Your task to perform on an android device: uninstall "Yahoo Mail" Image 0: 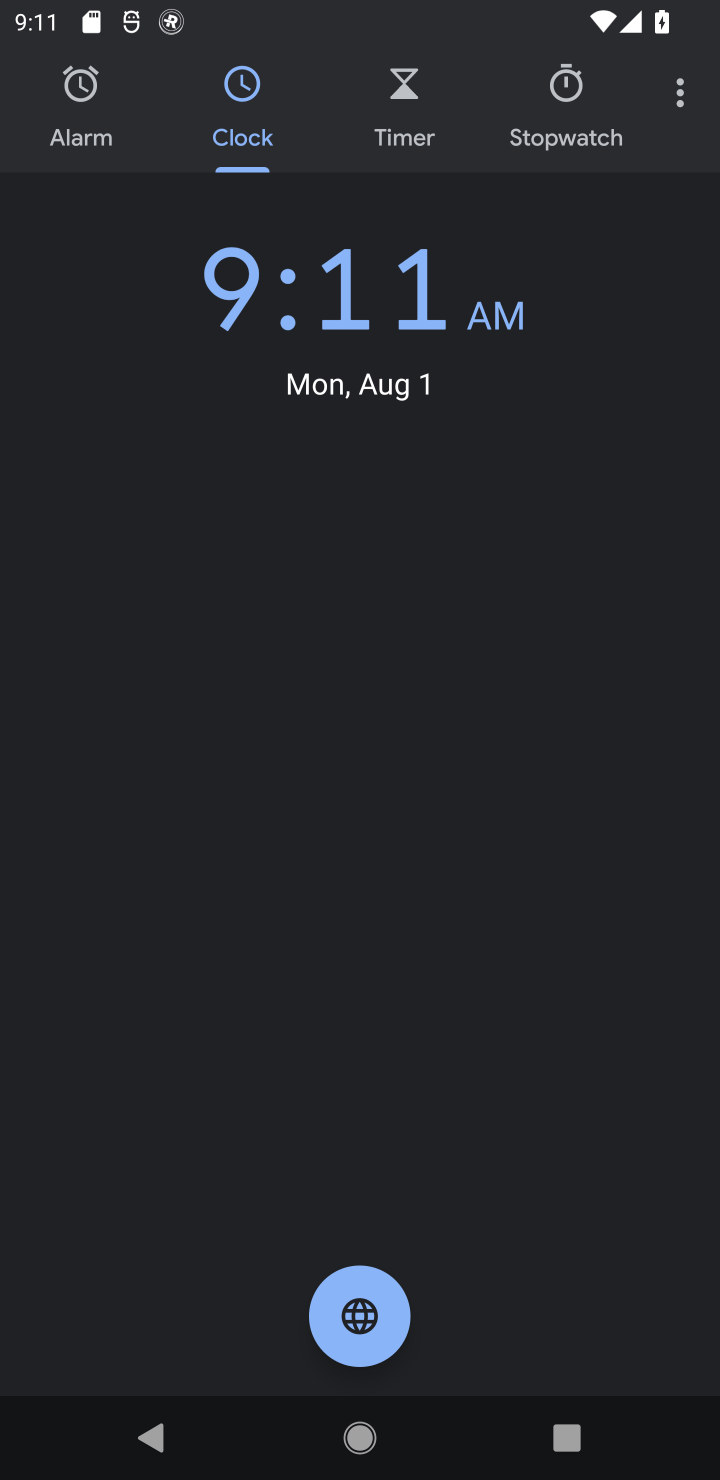
Step 0: press home button
Your task to perform on an android device: uninstall "Yahoo Mail" Image 1: 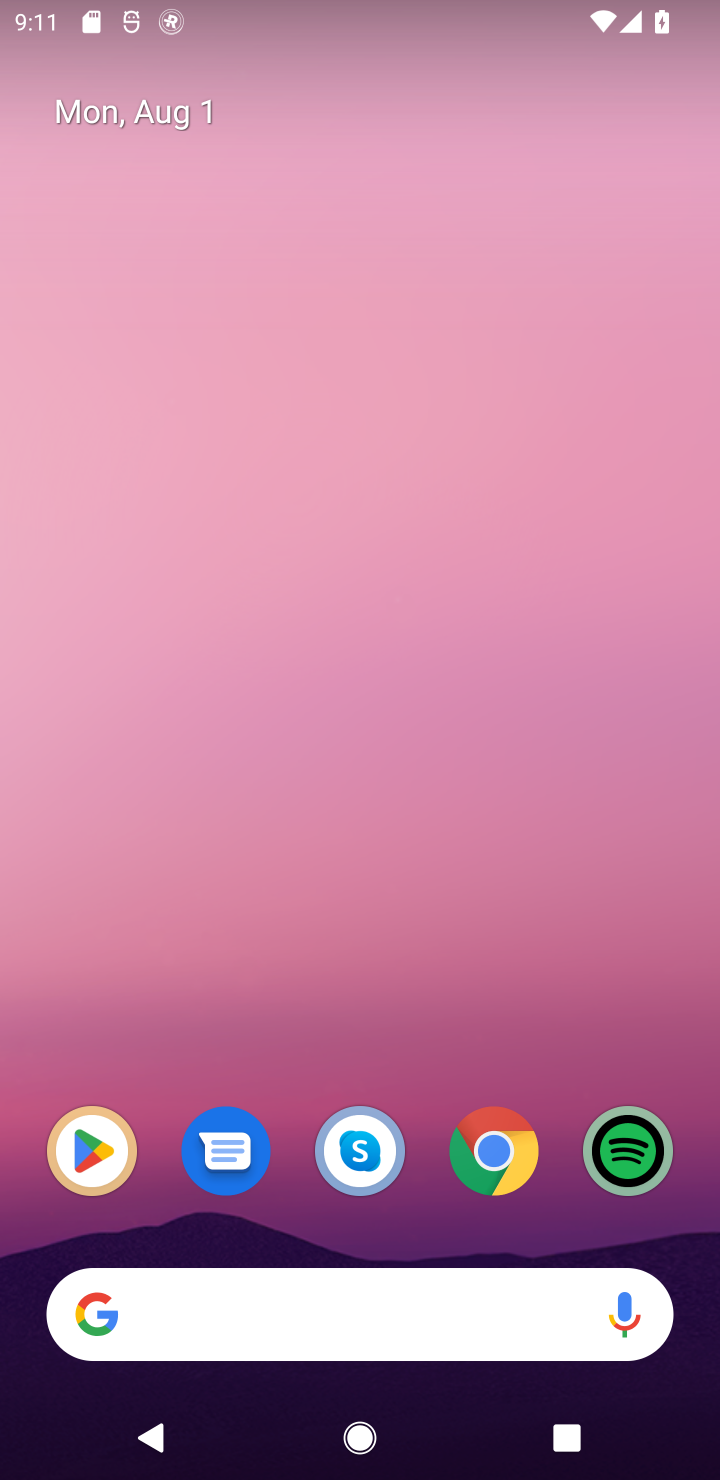
Step 1: click (108, 1149)
Your task to perform on an android device: uninstall "Yahoo Mail" Image 2: 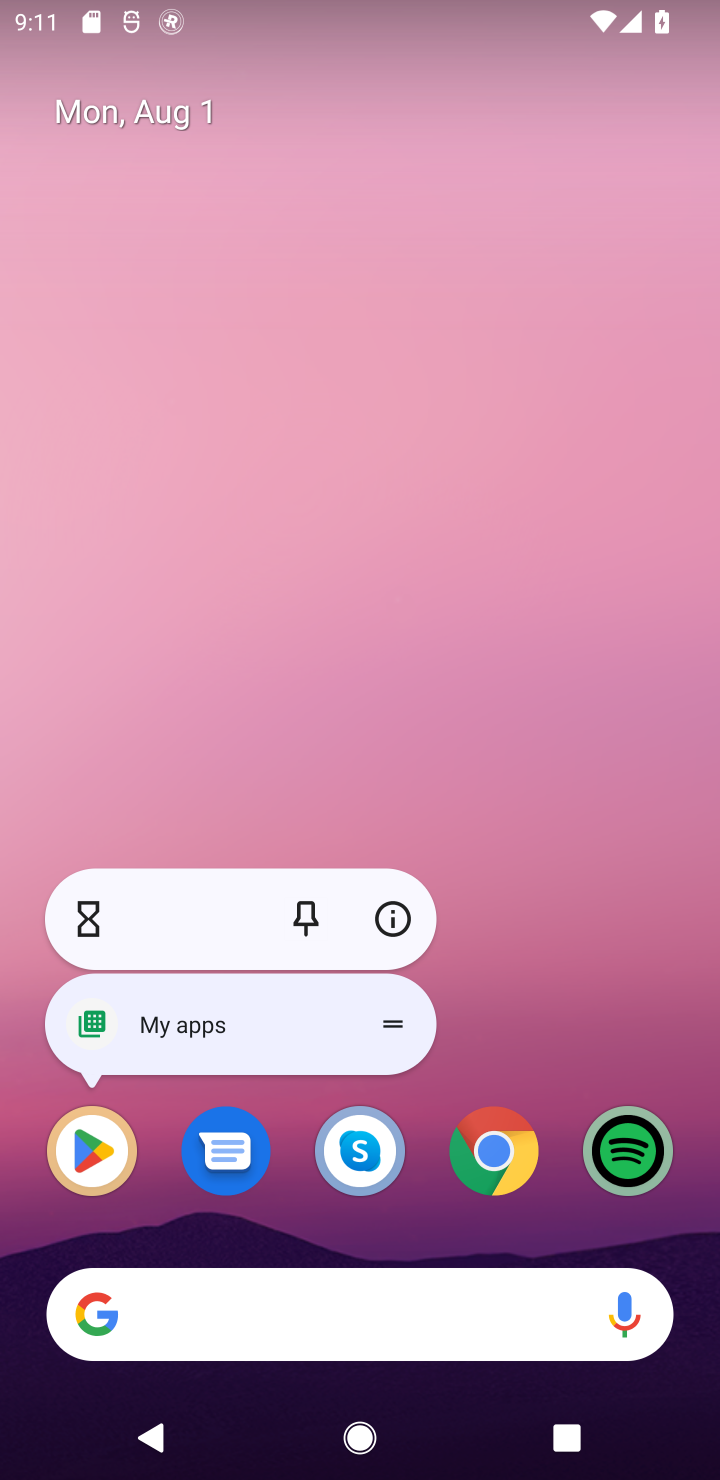
Step 2: click (84, 1144)
Your task to perform on an android device: uninstall "Yahoo Mail" Image 3: 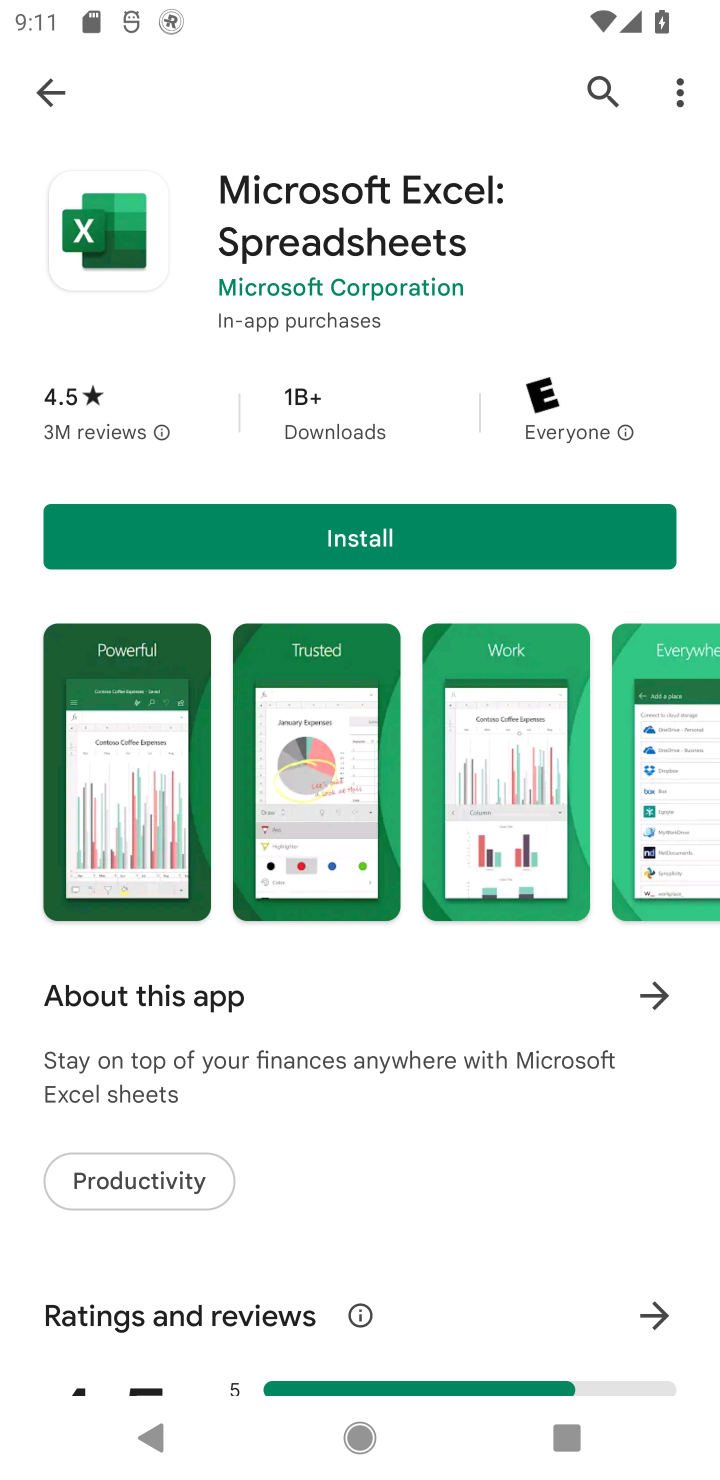
Step 3: click (609, 88)
Your task to perform on an android device: uninstall "Yahoo Mail" Image 4: 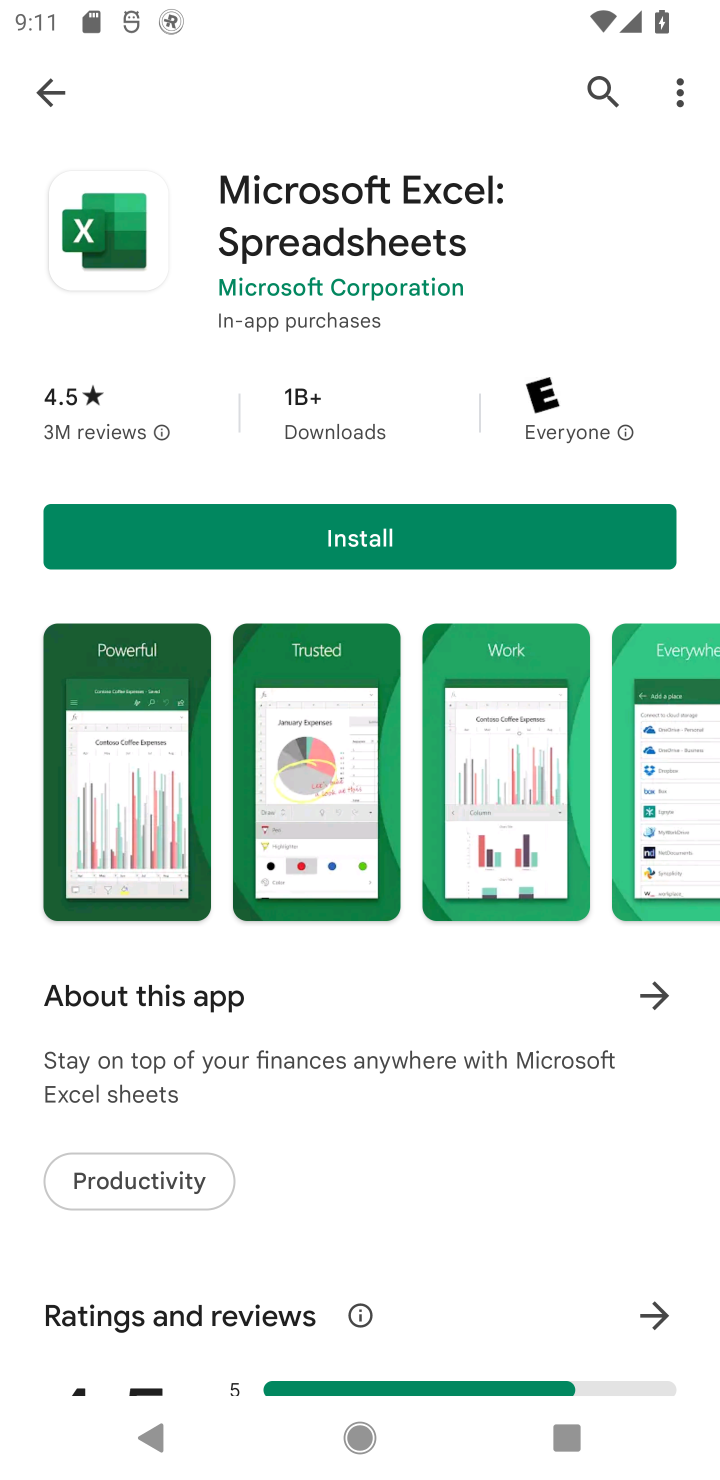
Step 4: type "ahoo Mail"
Your task to perform on an android device: uninstall "Yahoo Mail" Image 5: 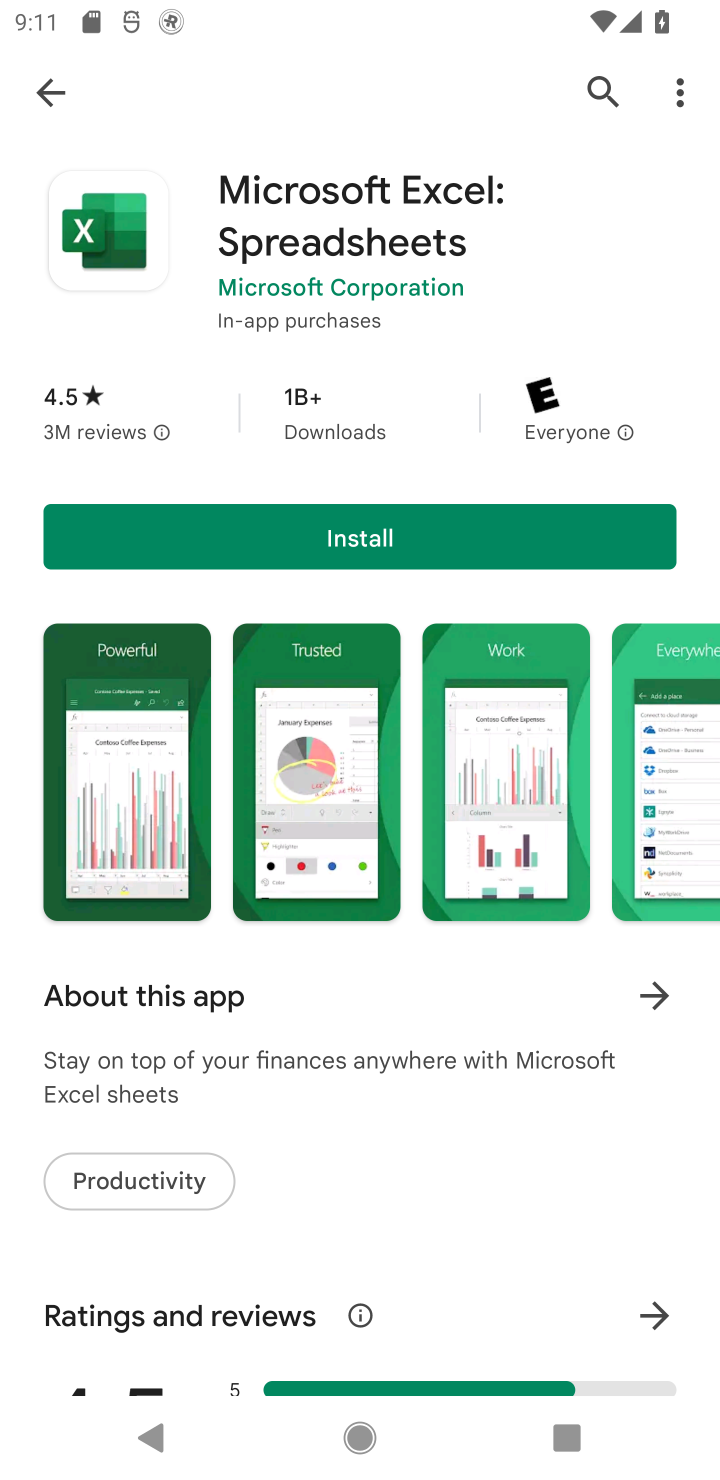
Step 5: type ""
Your task to perform on an android device: uninstall "Yahoo Mail" Image 6: 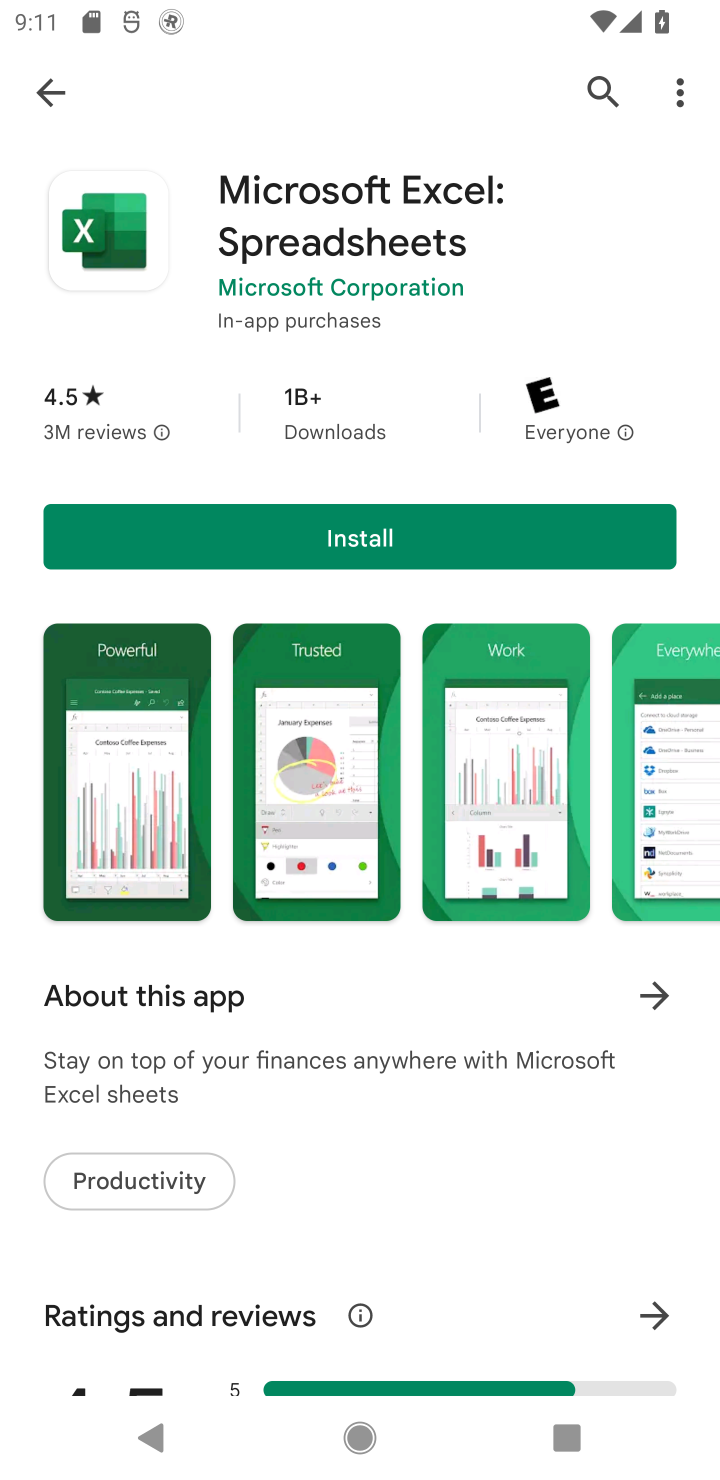
Step 6: click (625, 79)
Your task to perform on an android device: uninstall "Yahoo Mail" Image 7: 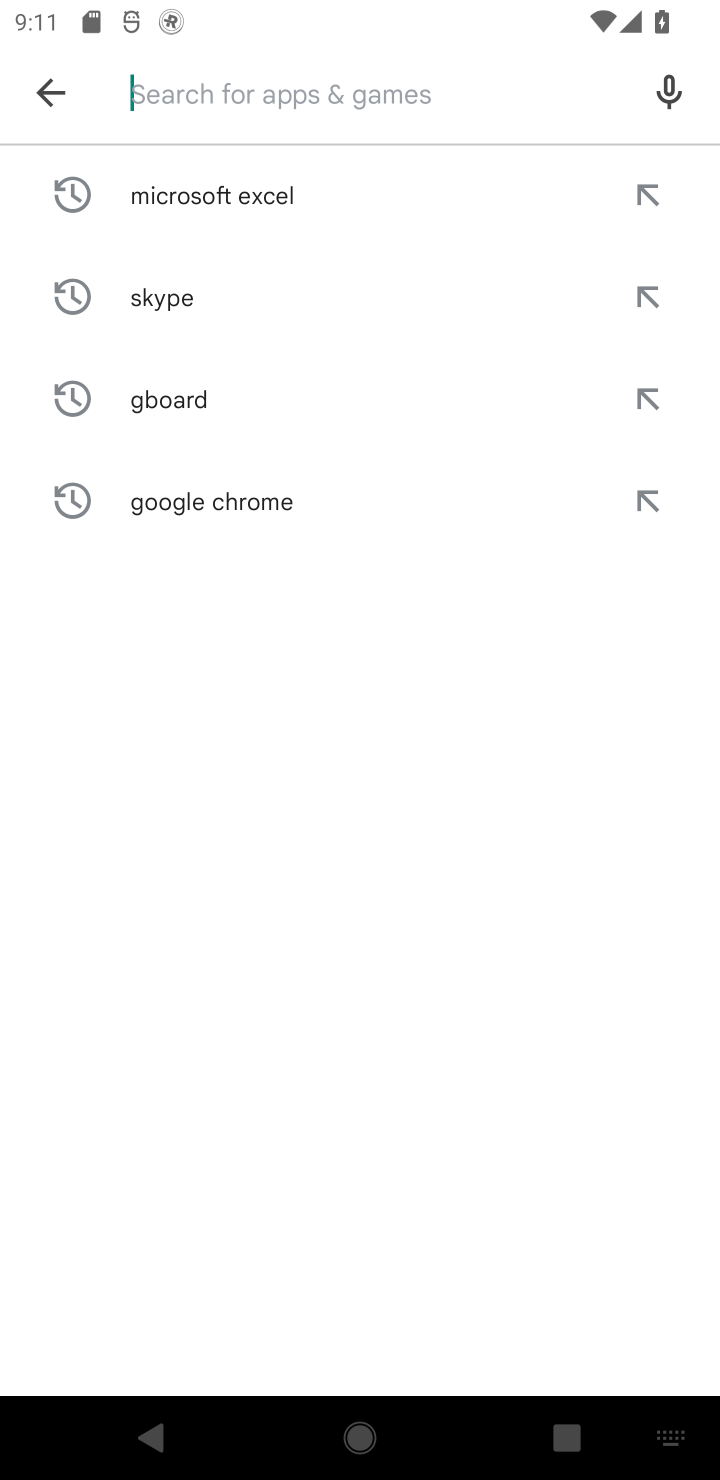
Step 7: type "Yahoo Mail"
Your task to perform on an android device: uninstall "Yahoo Mail" Image 8: 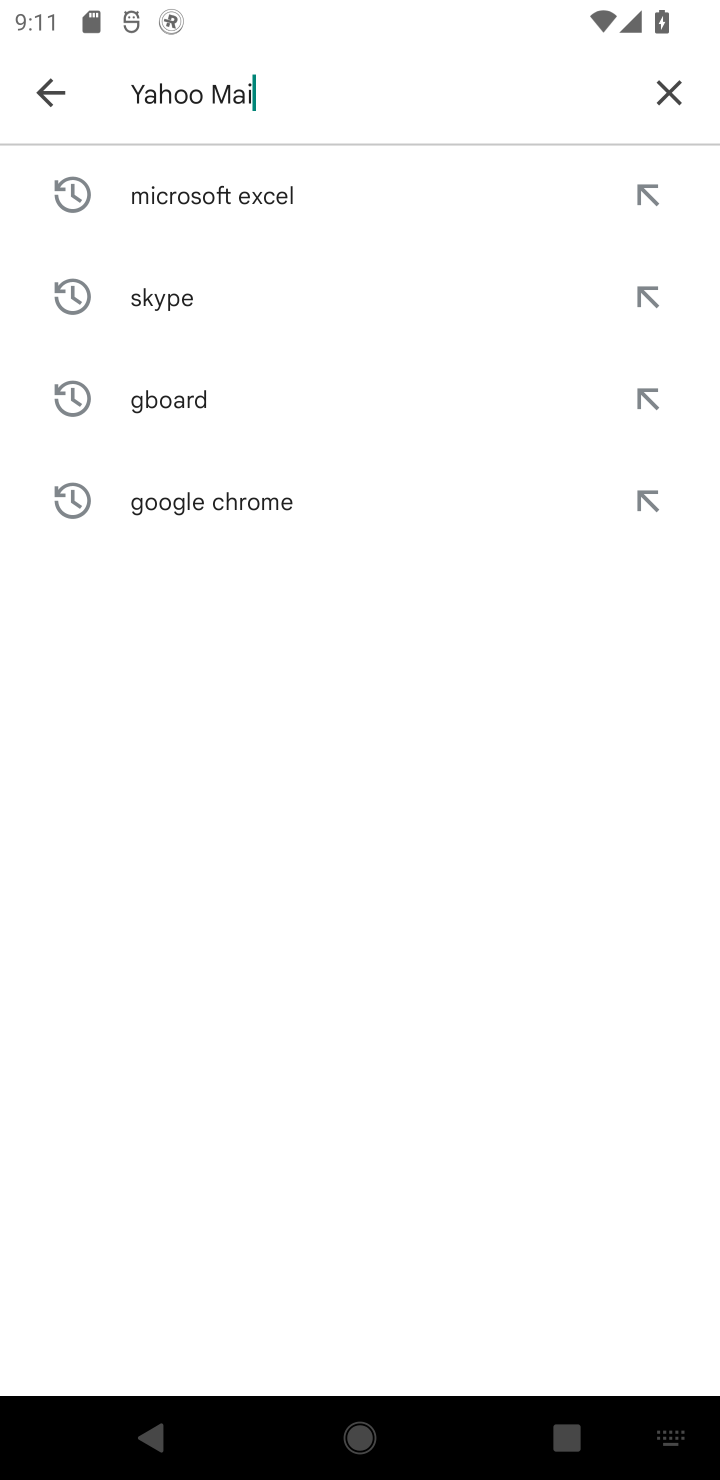
Step 8: type ""
Your task to perform on an android device: uninstall "Yahoo Mail" Image 9: 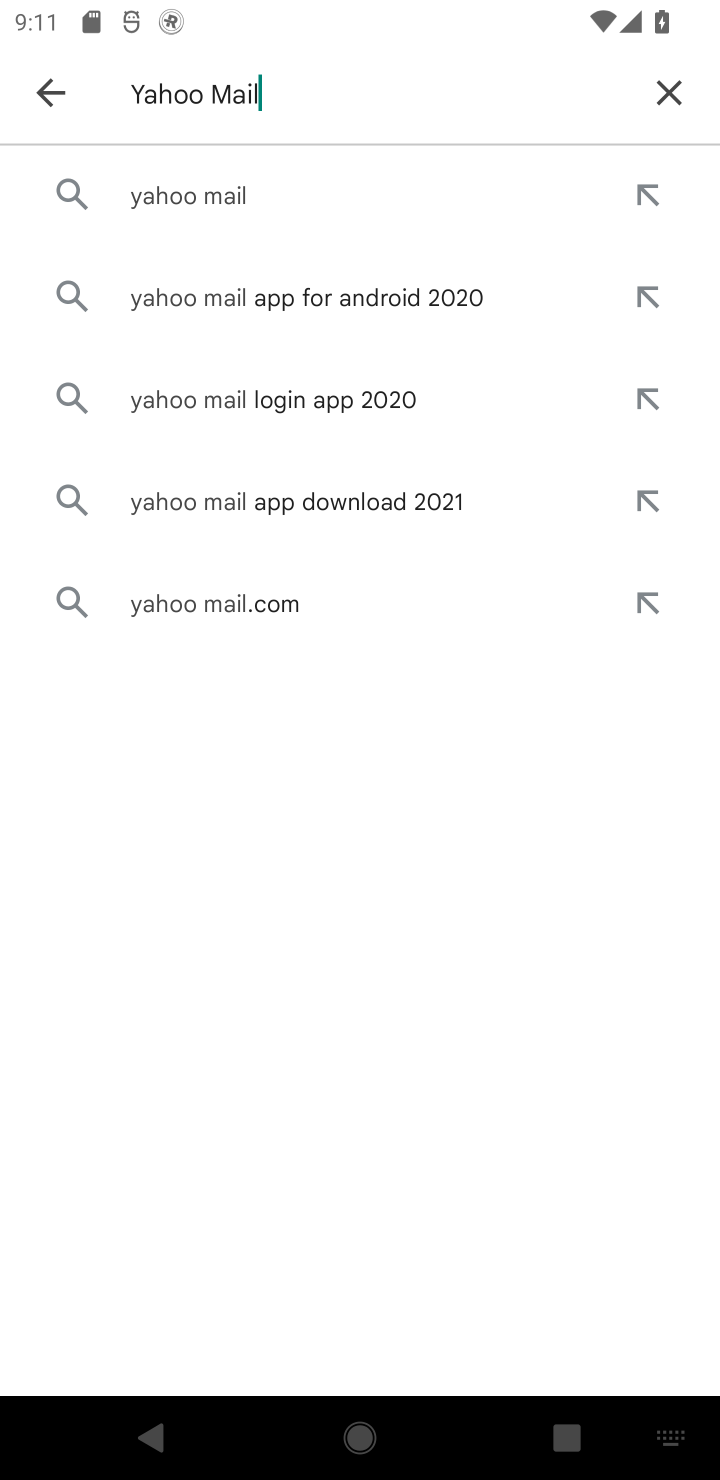
Step 9: click (249, 188)
Your task to perform on an android device: uninstall "Yahoo Mail" Image 10: 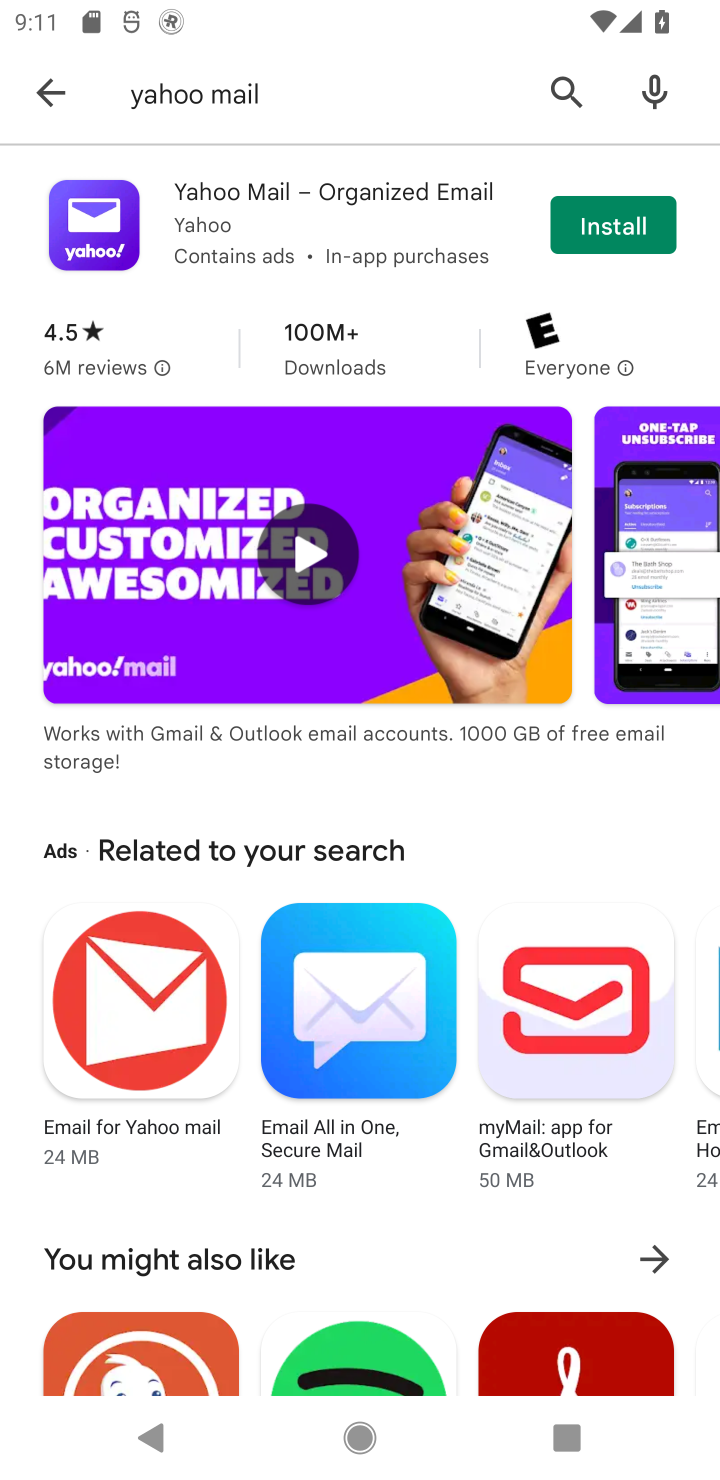
Step 10: click (365, 188)
Your task to perform on an android device: uninstall "Yahoo Mail" Image 11: 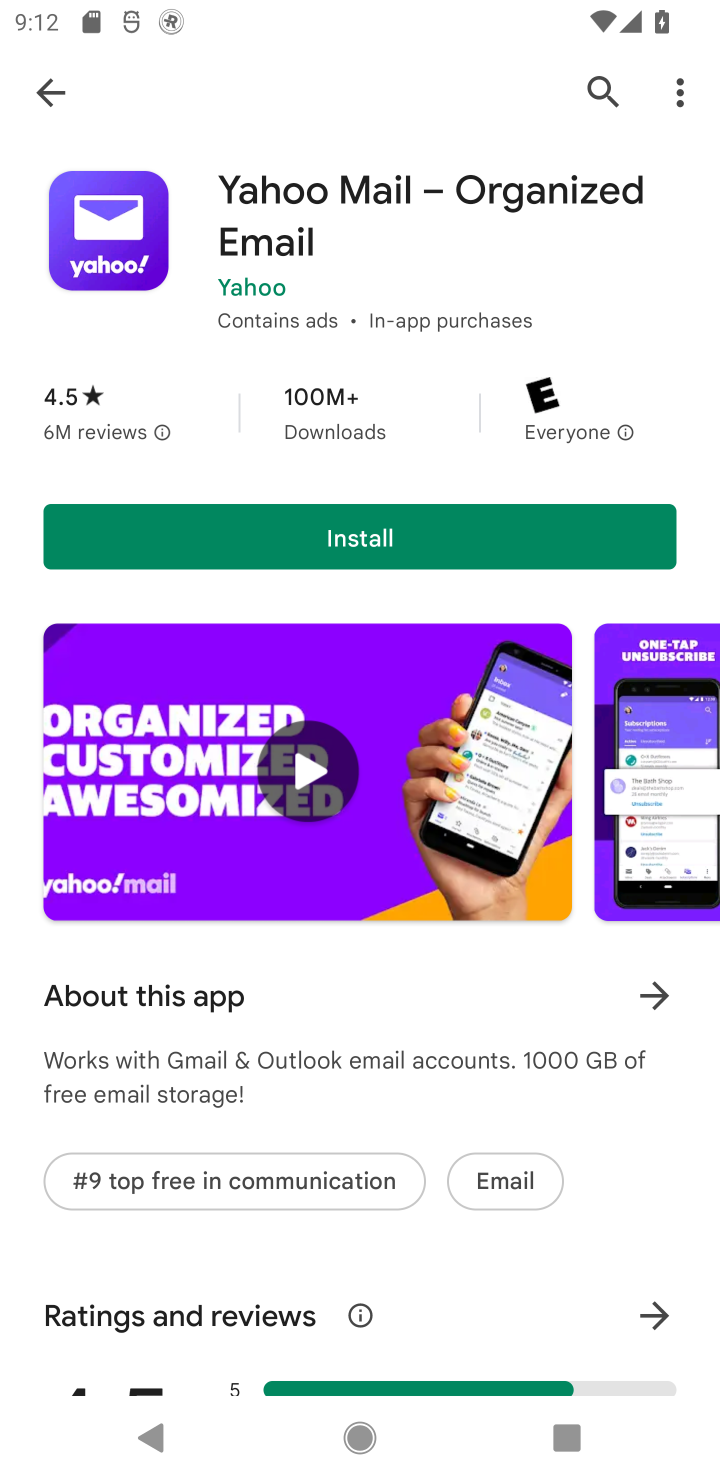
Step 11: task complete